Your task to perform on an android device: What is the recent news? Image 0: 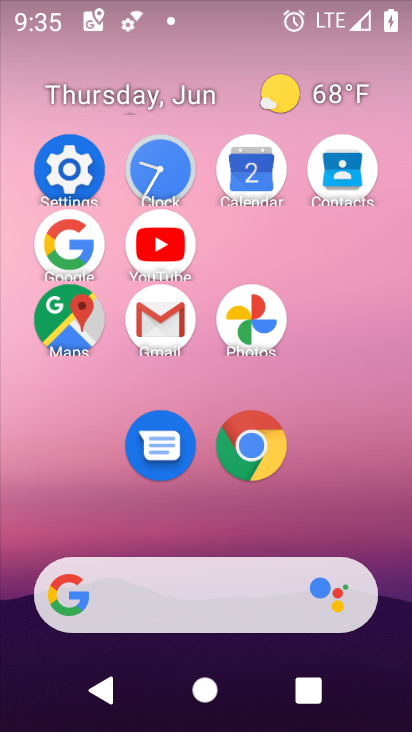
Step 0: click (50, 252)
Your task to perform on an android device: What is the recent news? Image 1: 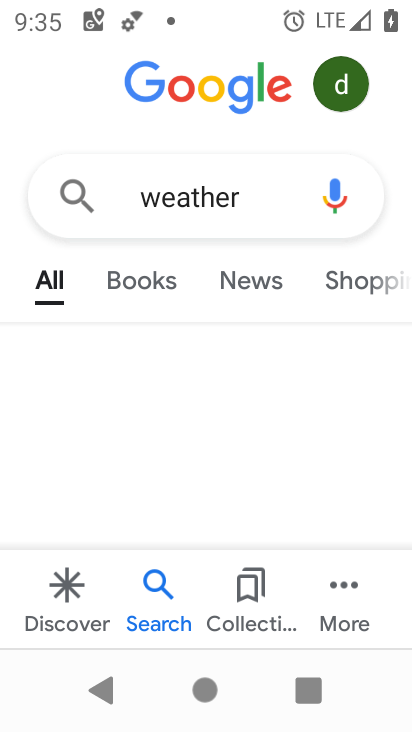
Step 1: click (259, 105)
Your task to perform on an android device: What is the recent news? Image 2: 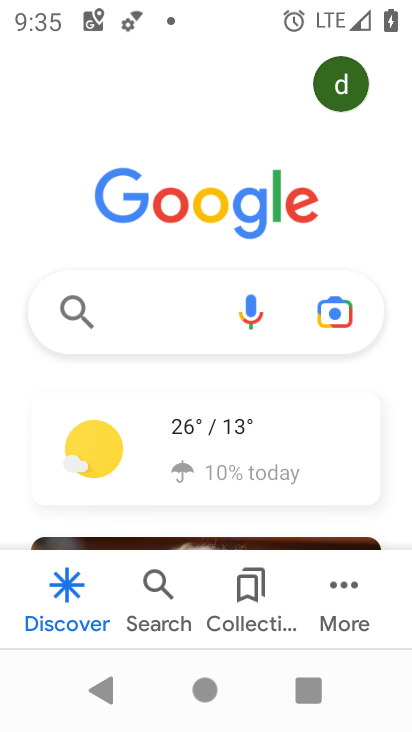
Step 2: click (132, 322)
Your task to perform on an android device: What is the recent news? Image 3: 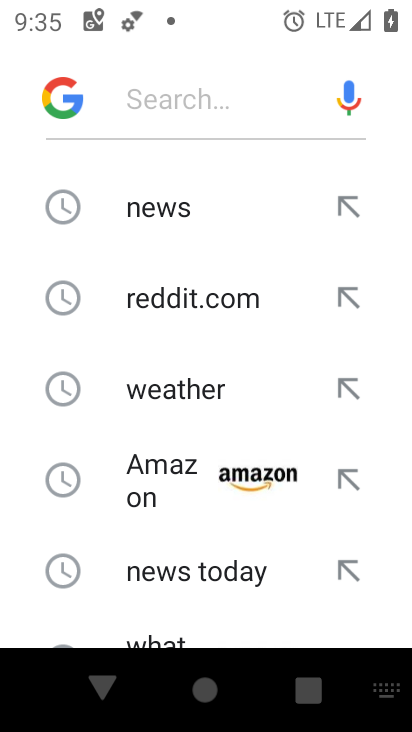
Step 3: drag from (184, 519) to (163, 163)
Your task to perform on an android device: What is the recent news? Image 4: 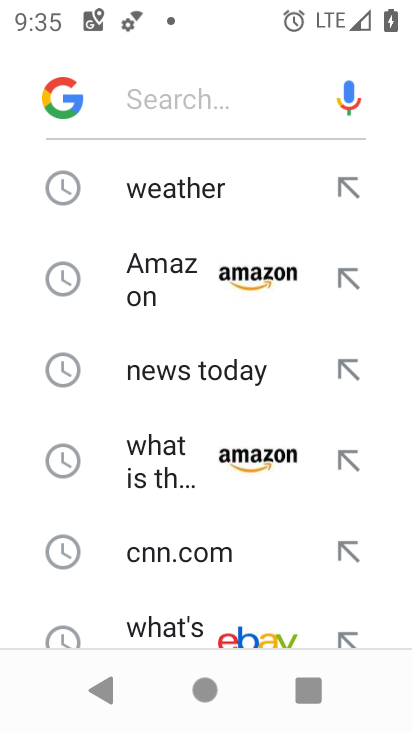
Step 4: drag from (216, 512) to (190, 226)
Your task to perform on an android device: What is the recent news? Image 5: 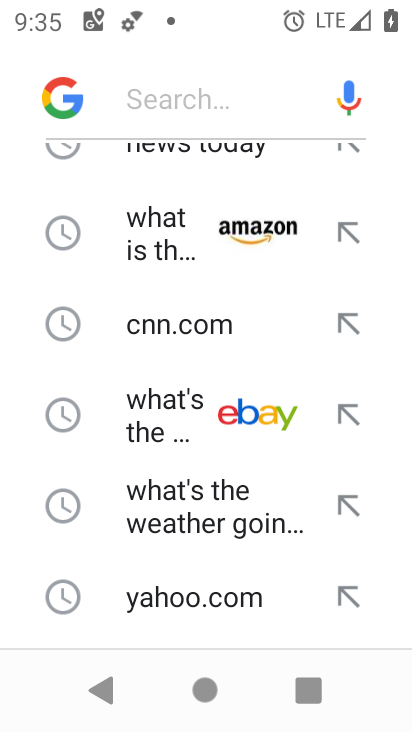
Step 5: drag from (219, 546) to (217, 200)
Your task to perform on an android device: What is the recent news? Image 6: 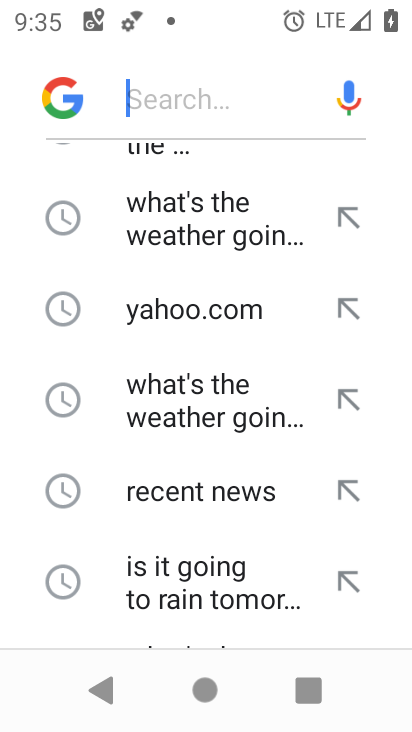
Step 6: click (202, 505)
Your task to perform on an android device: What is the recent news? Image 7: 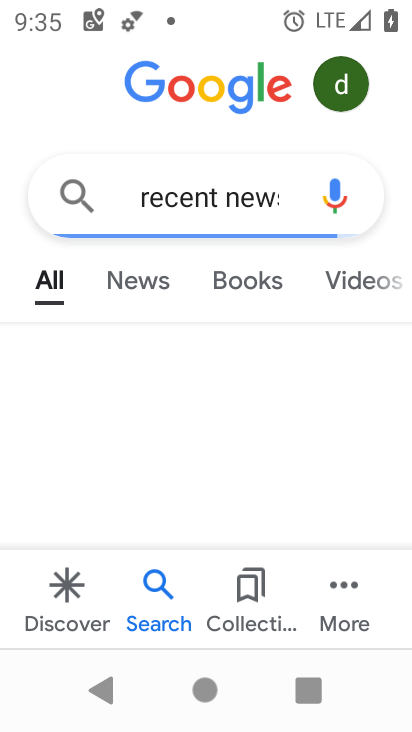
Step 7: task complete